Your task to perform on an android device: Search for pizza restaurants on Maps Image 0: 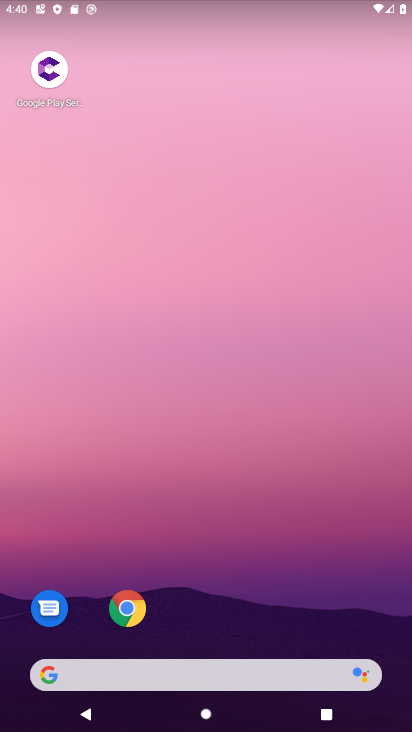
Step 0: drag from (174, 556) to (290, 0)
Your task to perform on an android device: Search for pizza restaurants on Maps Image 1: 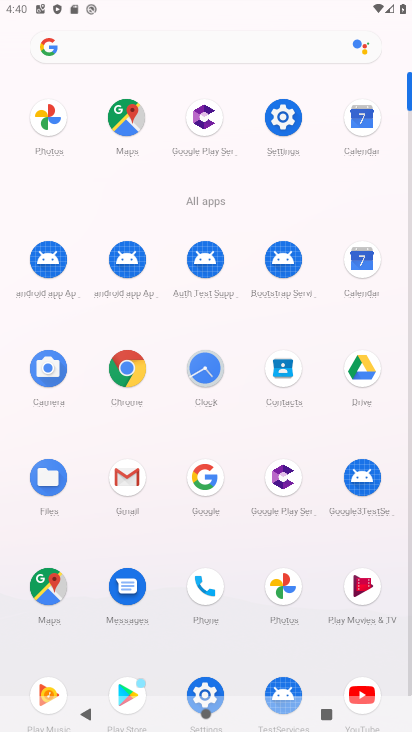
Step 1: click (51, 583)
Your task to perform on an android device: Search for pizza restaurants on Maps Image 2: 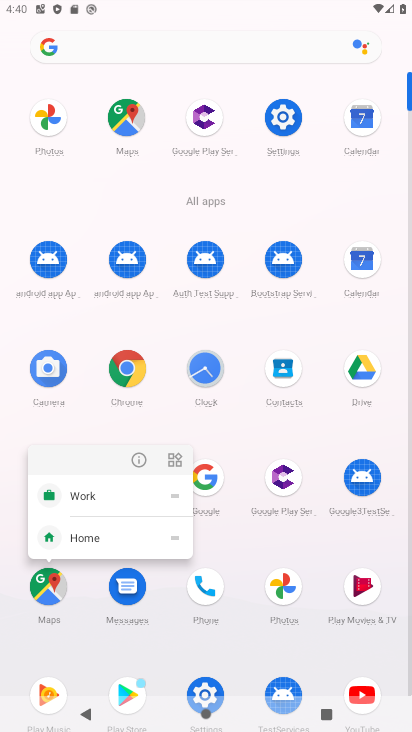
Step 2: click (44, 581)
Your task to perform on an android device: Search for pizza restaurants on Maps Image 3: 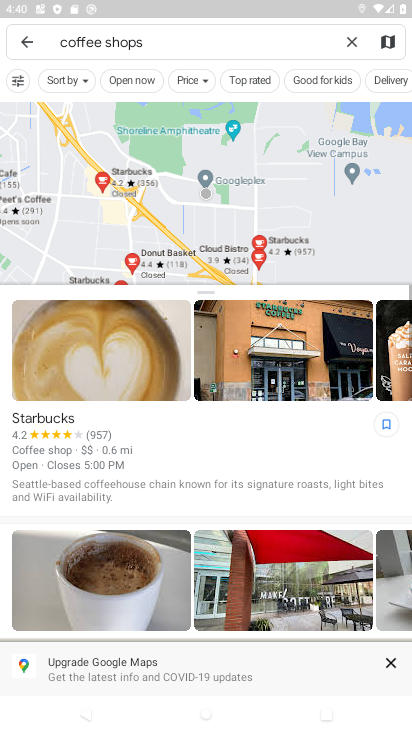
Step 3: click (347, 41)
Your task to perform on an android device: Search for pizza restaurants on Maps Image 4: 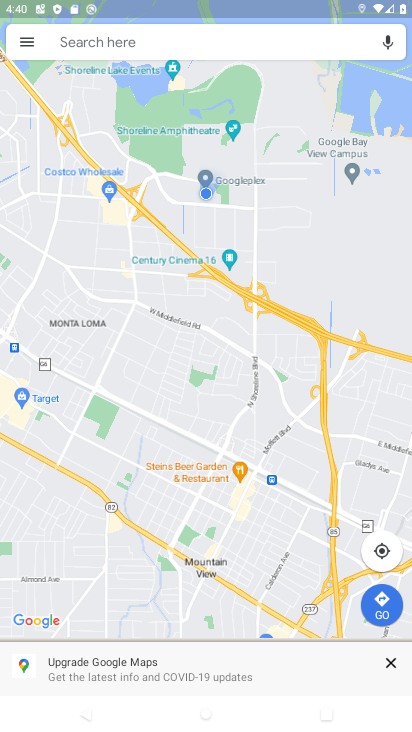
Step 4: type "Pi"
Your task to perform on an android device: Search for pizza restaurants on Maps Image 5: 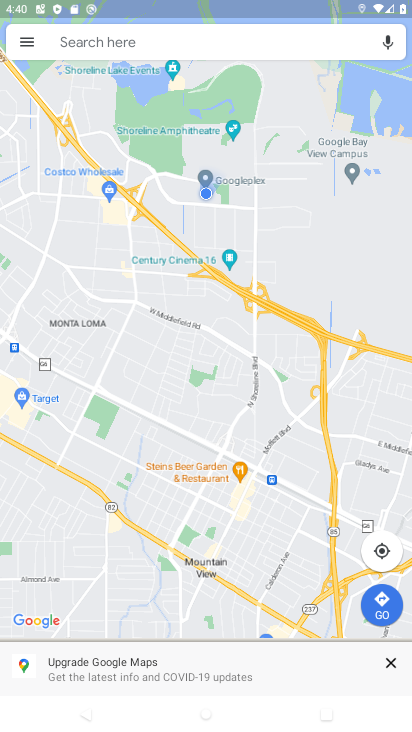
Step 5: click (136, 36)
Your task to perform on an android device: Search for pizza restaurants on Maps Image 6: 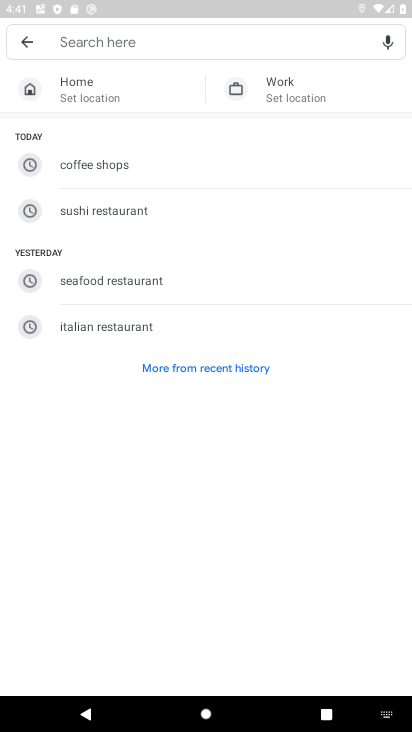
Step 6: type "Pizza restaurants"
Your task to perform on an android device: Search for pizza restaurants on Maps Image 7: 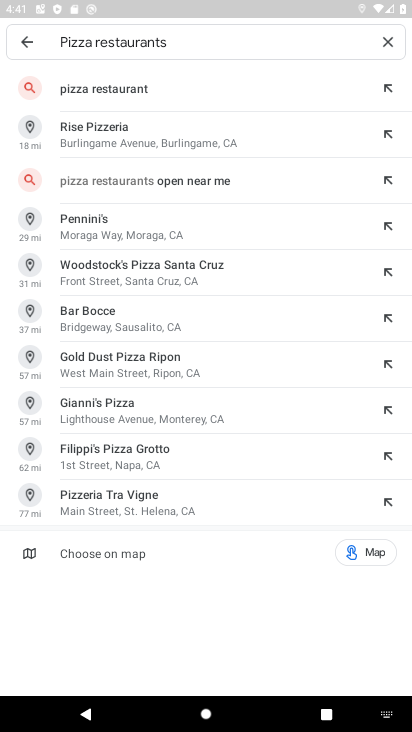
Step 7: click (141, 89)
Your task to perform on an android device: Search for pizza restaurants on Maps Image 8: 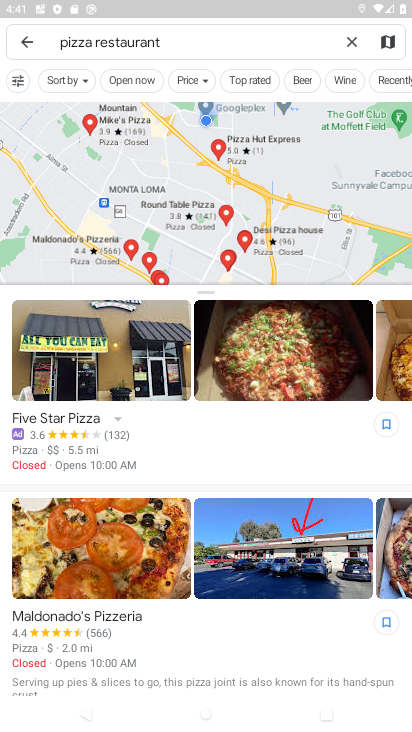
Step 8: task complete